Your task to perform on an android device: Open the phone app and click the voicemail tab. Image 0: 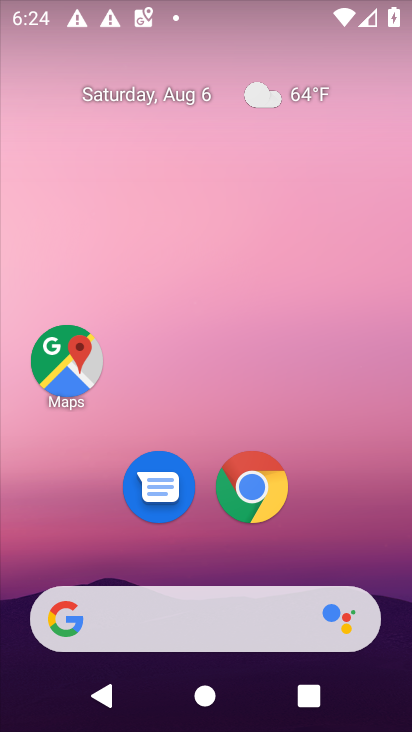
Step 0: drag from (235, 571) to (274, 89)
Your task to perform on an android device: Open the phone app and click the voicemail tab. Image 1: 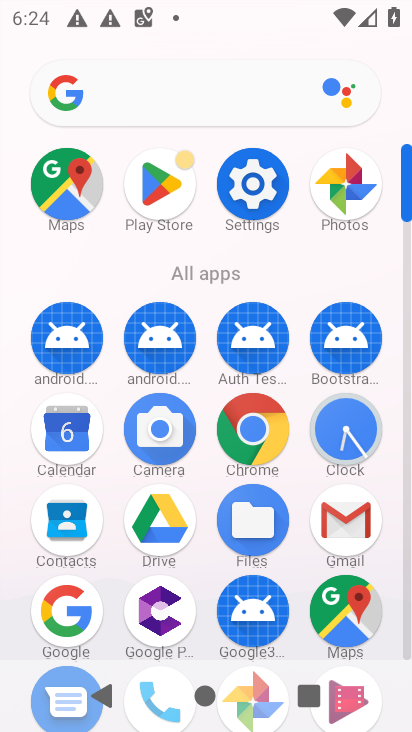
Step 1: drag from (212, 616) to (309, 182)
Your task to perform on an android device: Open the phone app and click the voicemail tab. Image 2: 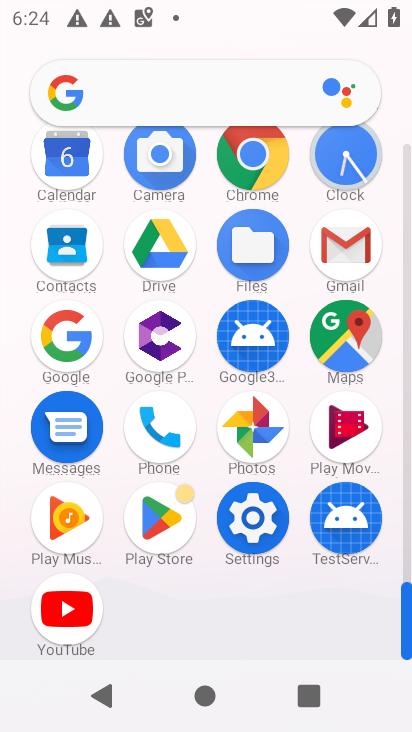
Step 2: click (167, 430)
Your task to perform on an android device: Open the phone app and click the voicemail tab. Image 3: 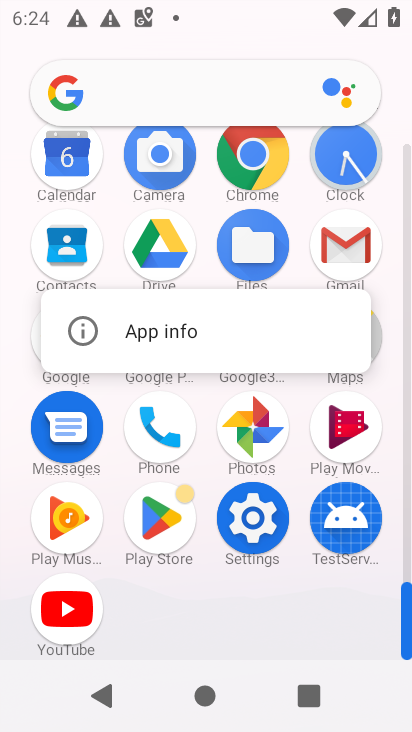
Step 3: click (146, 430)
Your task to perform on an android device: Open the phone app and click the voicemail tab. Image 4: 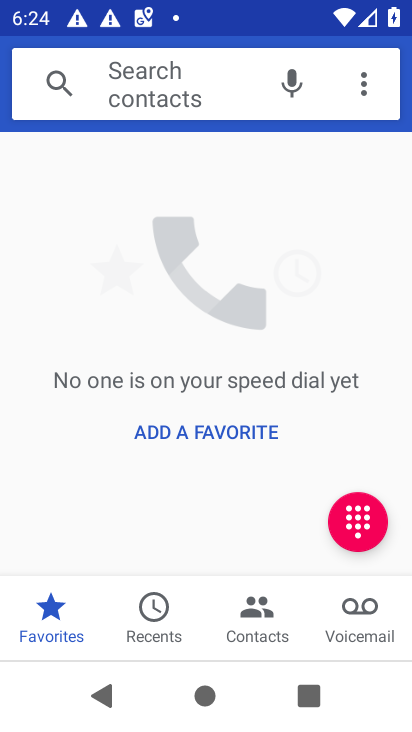
Step 4: click (349, 624)
Your task to perform on an android device: Open the phone app and click the voicemail tab. Image 5: 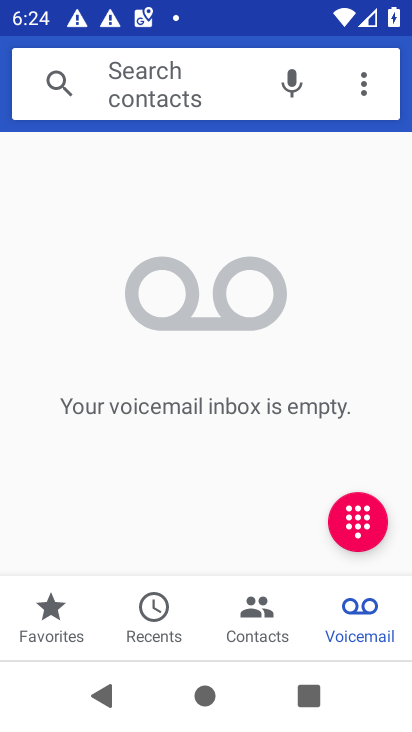
Step 5: task complete